Your task to perform on an android device: turn off improve location accuracy Image 0: 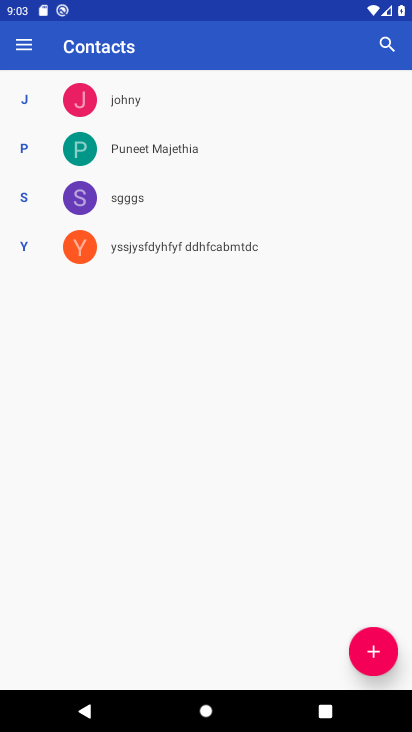
Step 0: press home button
Your task to perform on an android device: turn off improve location accuracy Image 1: 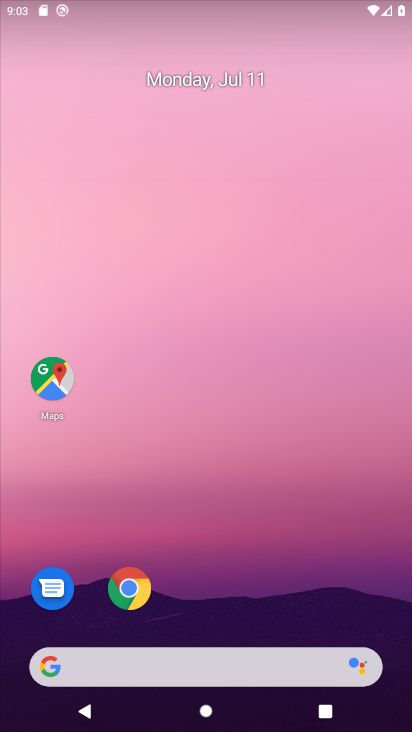
Step 1: drag from (247, 646) to (227, 250)
Your task to perform on an android device: turn off improve location accuracy Image 2: 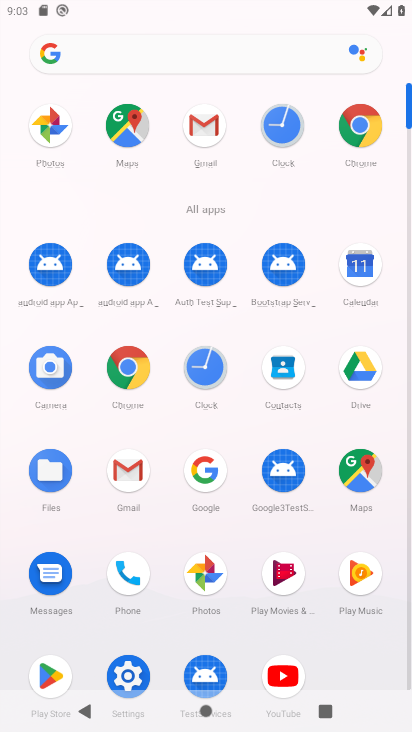
Step 2: click (135, 668)
Your task to perform on an android device: turn off improve location accuracy Image 3: 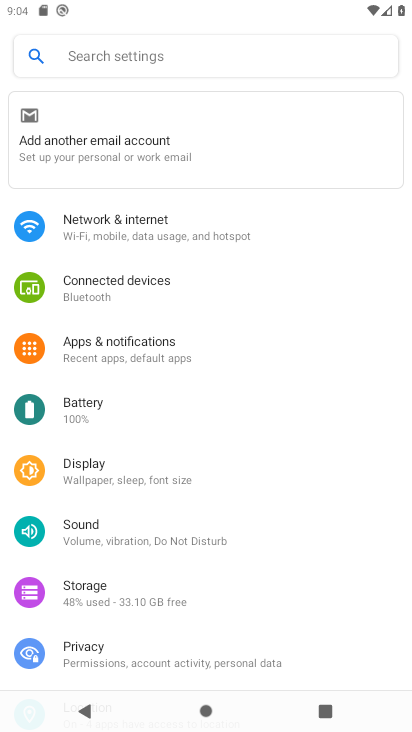
Step 3: drag from (121, 606) to (171, 247)
Your task to perform on an android device: turn off improve location accuracy Image 4: 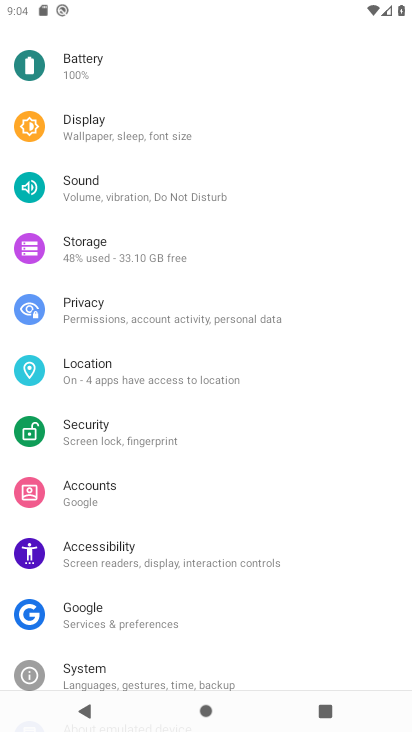
Step 4: click (106, 355)
Your task to perform on an android device: turn off improve location accuracy Image 5: 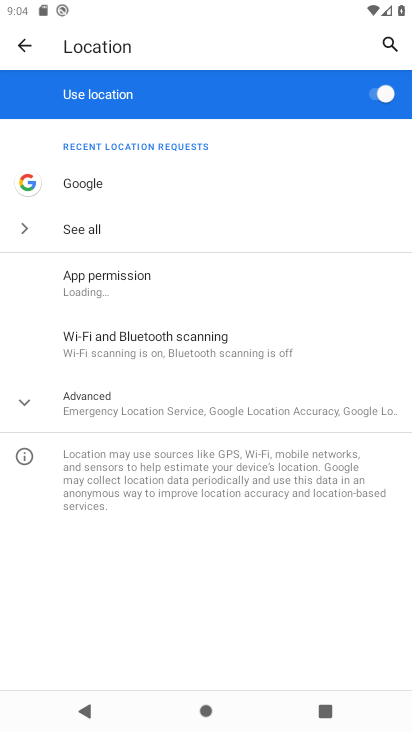
Step 5: click (183, 400)
Your task to perform on an android device: turn off improve location accuracy Image 6: 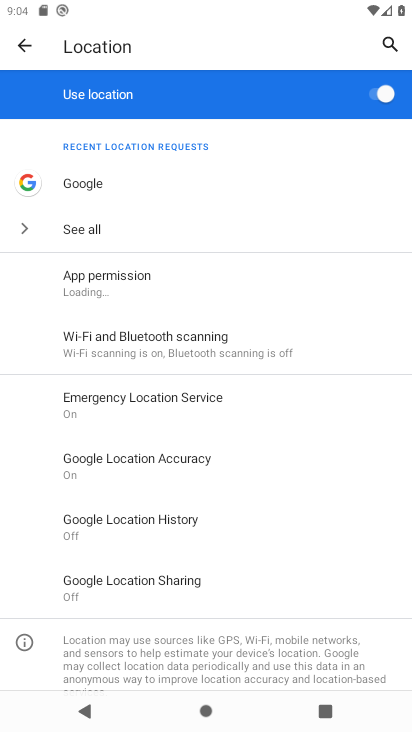
Step 6: click (165, 464)
Your task to perform on an android device: turn off improve location accuracy Image 7: 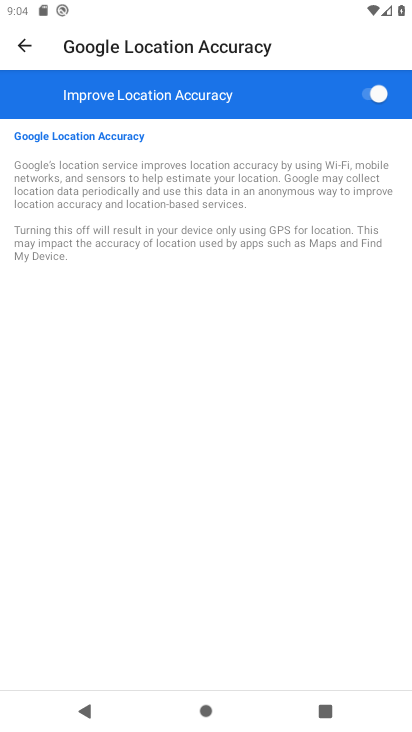
Step 7: click (364, 95)
Your task to perform on an android device: turn off improve location accuracy Image 8: 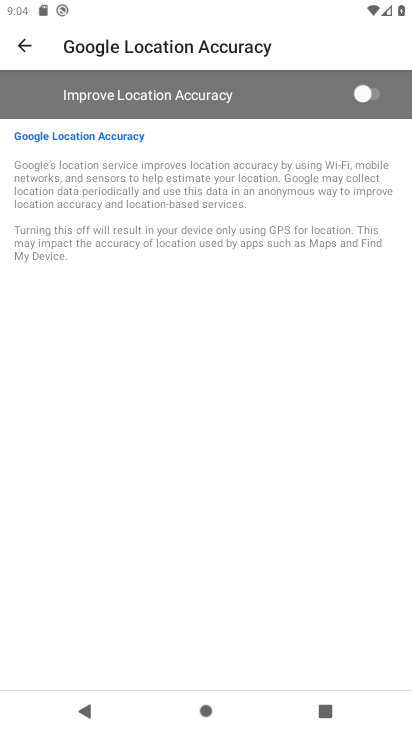
Step 8: task complete